Your task to perform on an android device: Show me popular games on the Play Store Image 0: 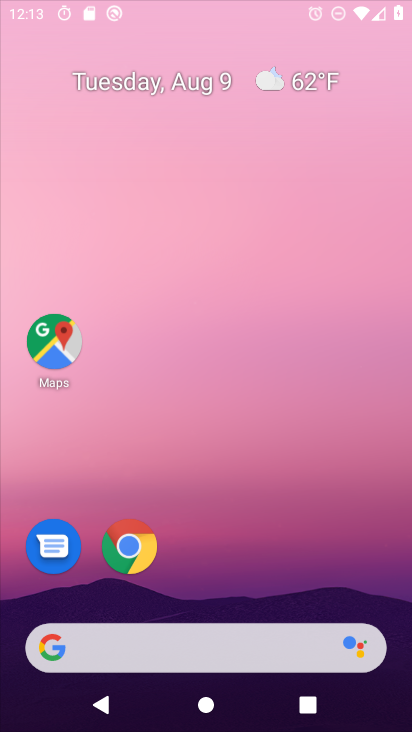
Step 0: press home button
Your task to perform on an android device: Show me popular games on the Play Store Image 1: 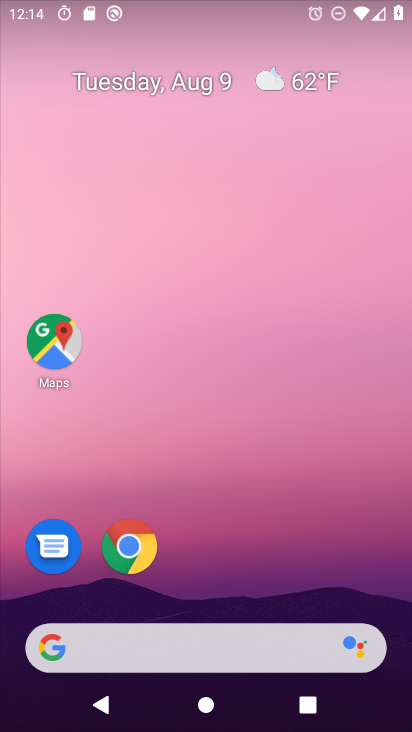
Step 1: drag from (230, 603) to (242, 2)
Your task to perform on an android device: Show me popular games on the Play Store Image 2: 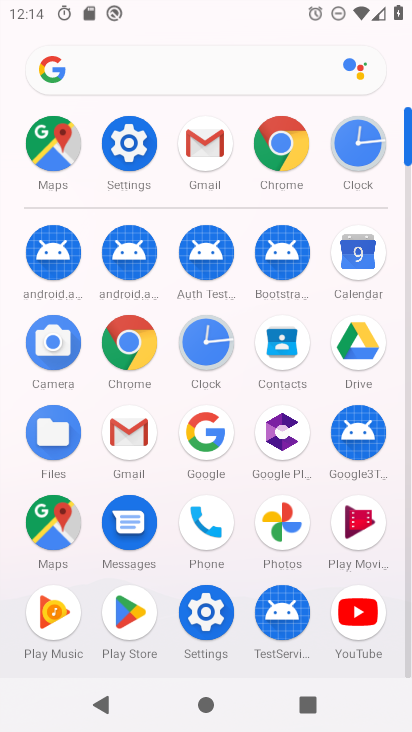
Step 2: click (123, 605)
Your task to perform on an android device: Show me popular games on the Play Store Image 3: 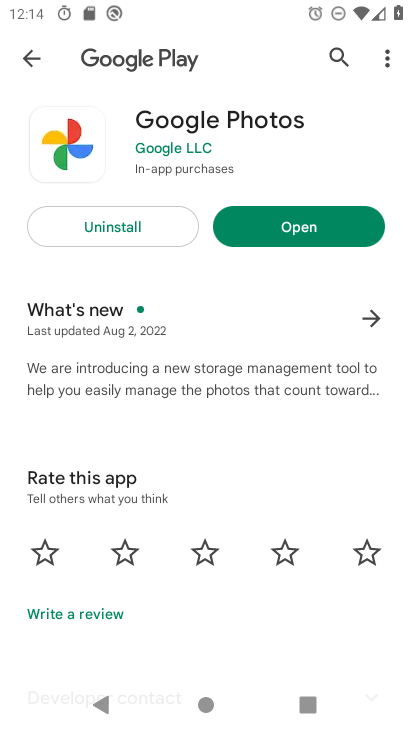
Step 3: click (31, 54)
Your task to perform on an android device: Show me popular games on the Play Store Image 4: 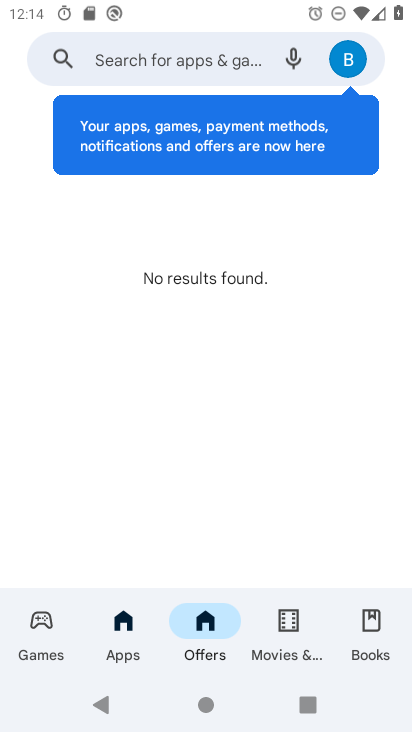
Step 4: click (33, 616)
Your task to perform on an android device: Show me popular games on the Play Store Image 5: 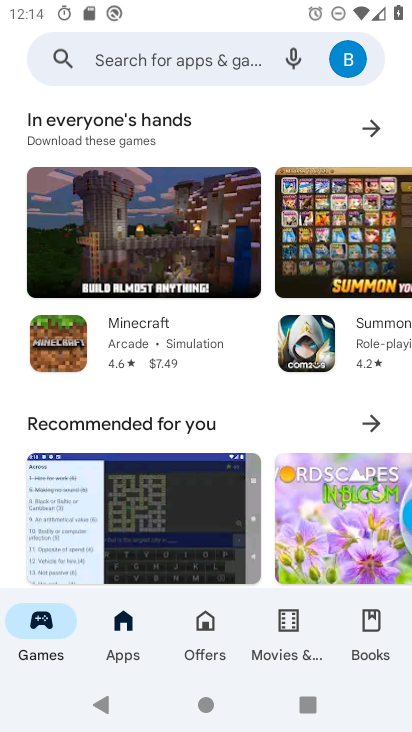
Step 5: drag from (260, 441) to (266, 130)
Your task to perform on an android device: Show me popular games on the Play Store Image 6: 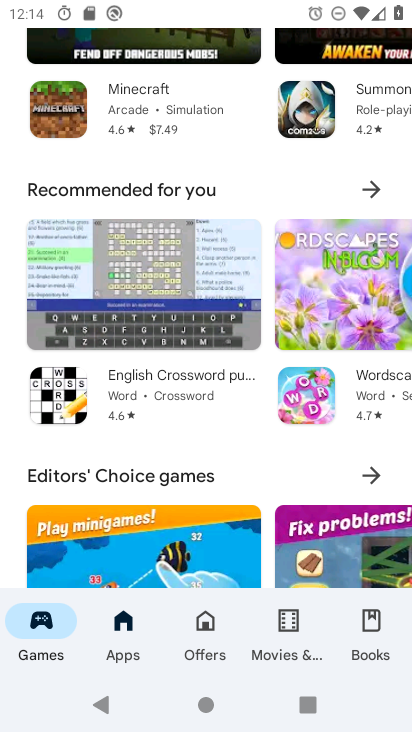
Step 6: drag from (267, 500) to (250, 149)
Your task to perform on an android device: Show me popular games on the Play Store Image 7: 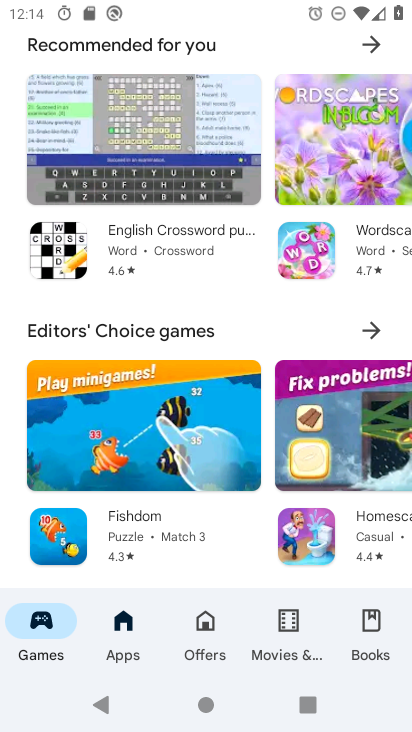
Step 7: drag from (269, 533) to (281, 200)
Your task to perform on an android device: Show me popular games on the Play Store Image 8: 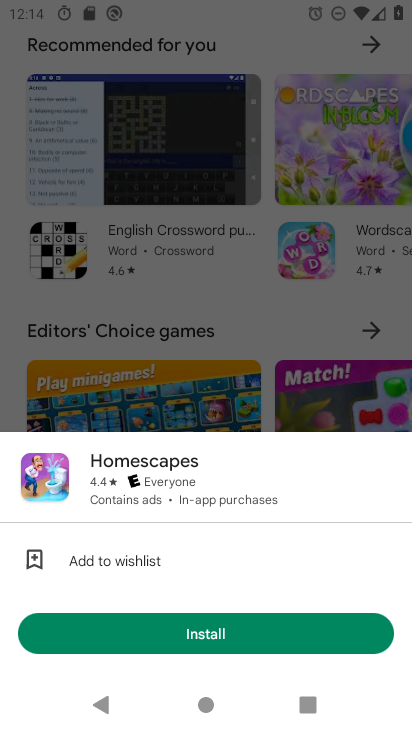
Step 8: click (262, 321)
Your task to perform on an android device: Show me popular games on the Play Store Image 9: 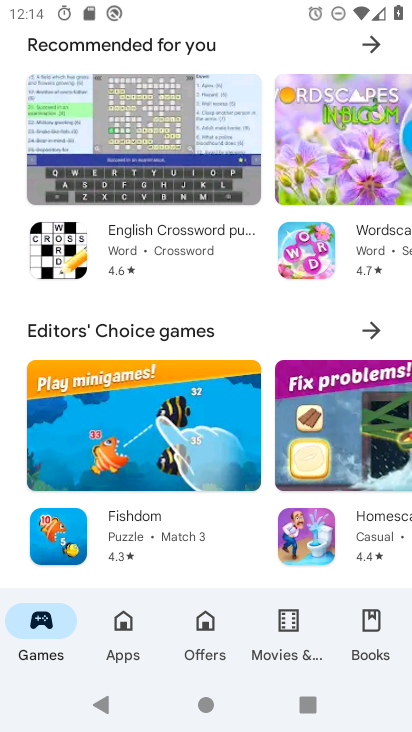
Step 9: task complete